Your task to perform on an android device: Go to Yahoo.com Image 0: 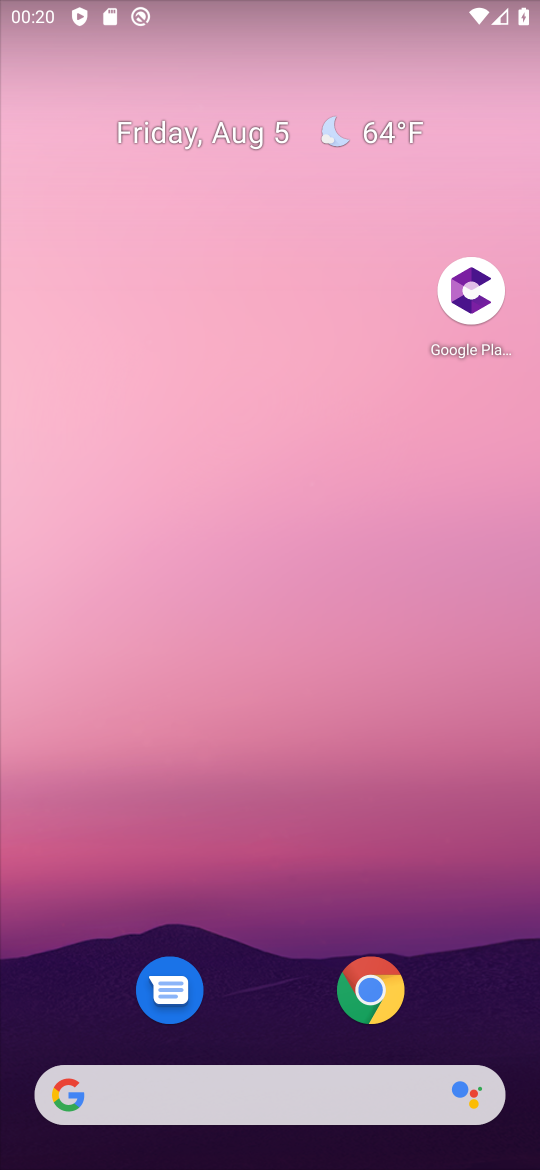
Step 0: drag from (228, 267) to (221, 105)
Your task to perform on an android device: Go to Yahoo.com Image 1: 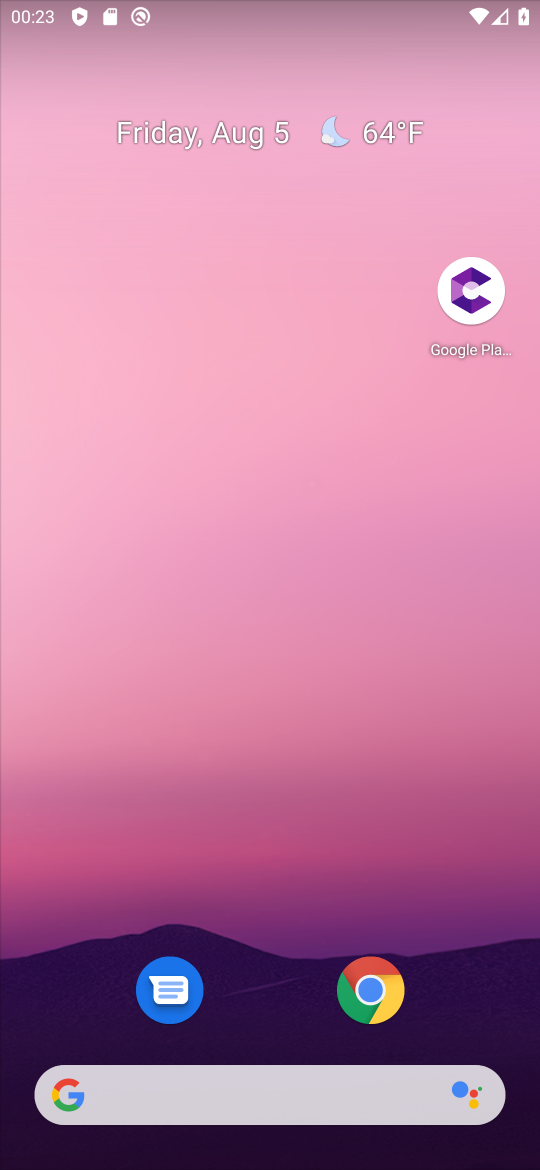
Step 1: click (367, 1012)
Your task to perform on an android device: Go to Yahoo.com Image 2: 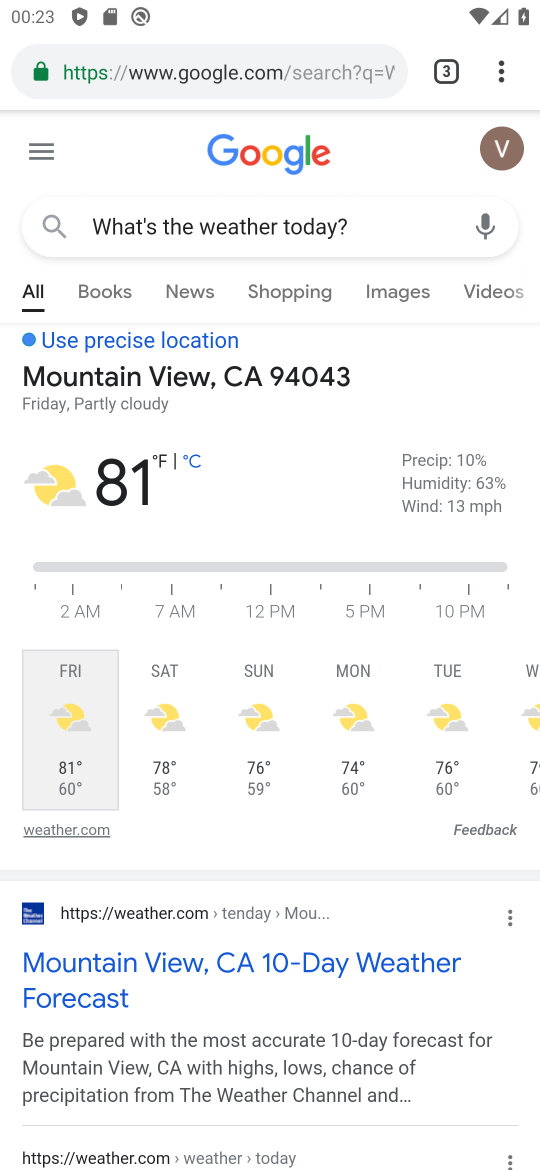
Step 2: click (377, 1019)
Your task to perform on an android device: Go to Yahoo.com Image 3: 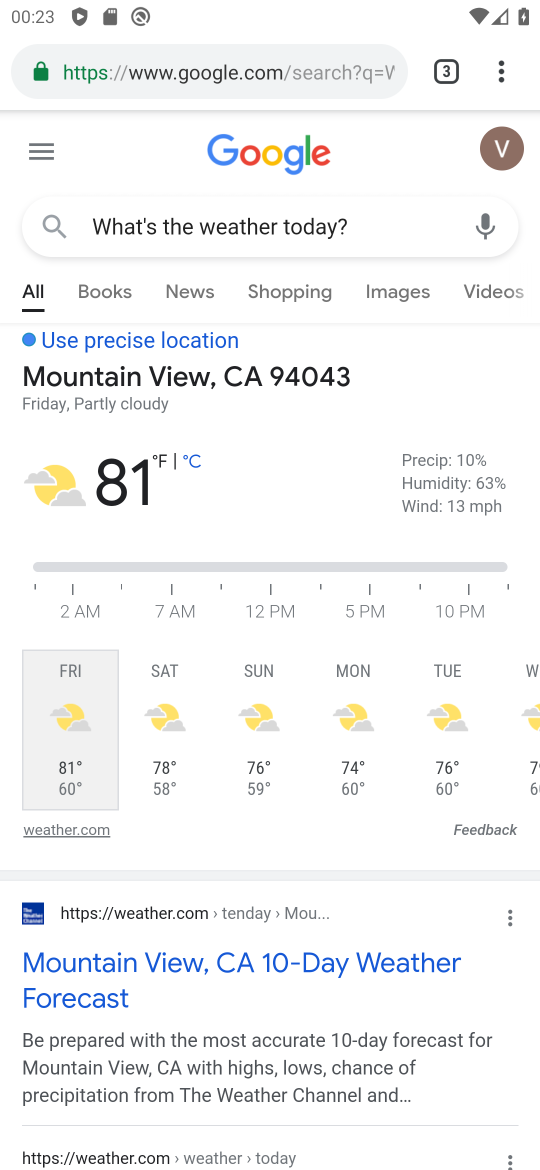
Step 3: click (432, 93)
Your task to perform on an android device: Go to Yahoo.com Image 4: 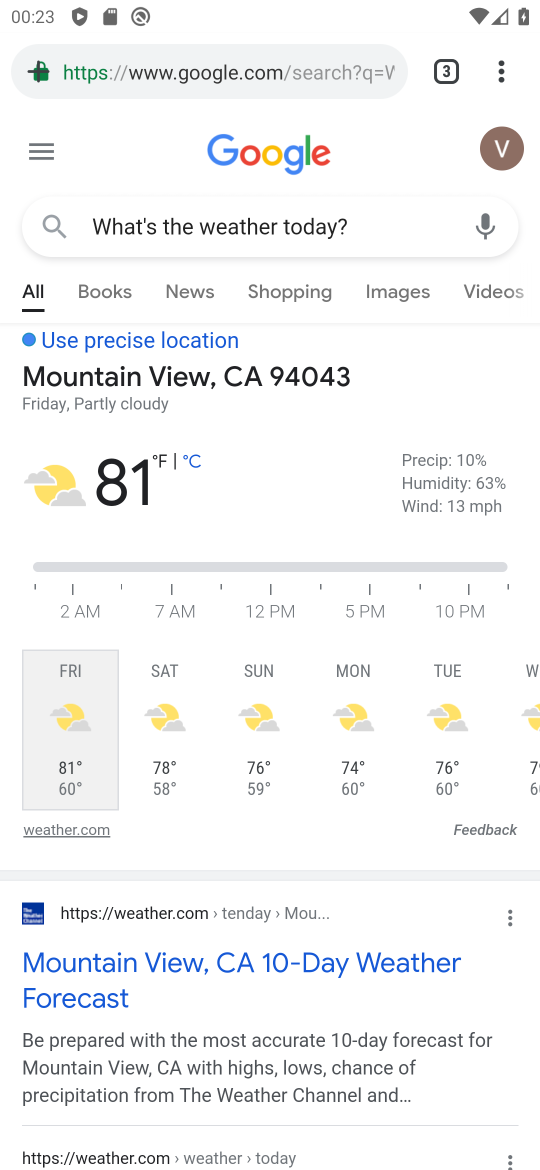
Step 4: click (498, 67)
Your task to perform on an android device: Go to Yahoo.com Image 5: 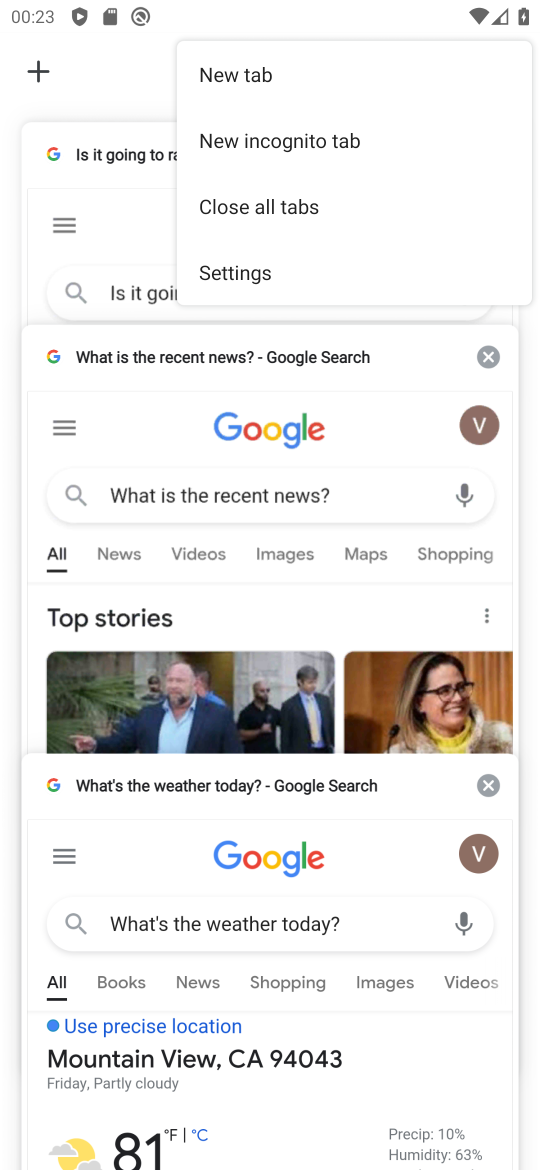
Step 5: click (271, 88)
Your task to perform on an android device: Go to Yahoo.com Image 6: 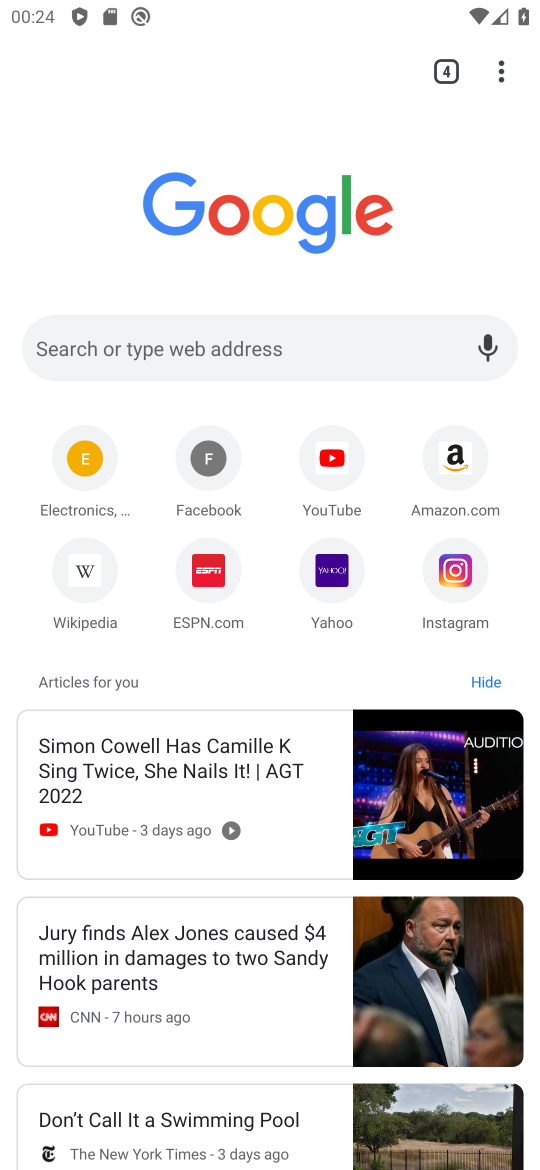
Step 6: click (336, 575)
Your task to perform on an android device: Go to Yahoo.com Image 7: 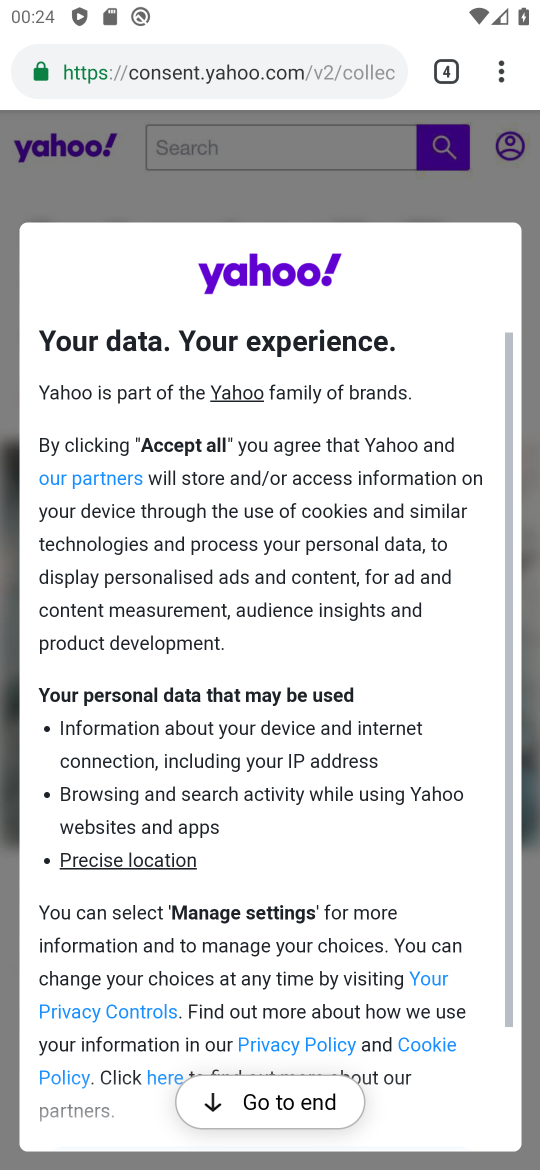
Step 7: task complete